Your task to perform on an android device: Look up the best rated pressure washer on Home Depot. Image 0: 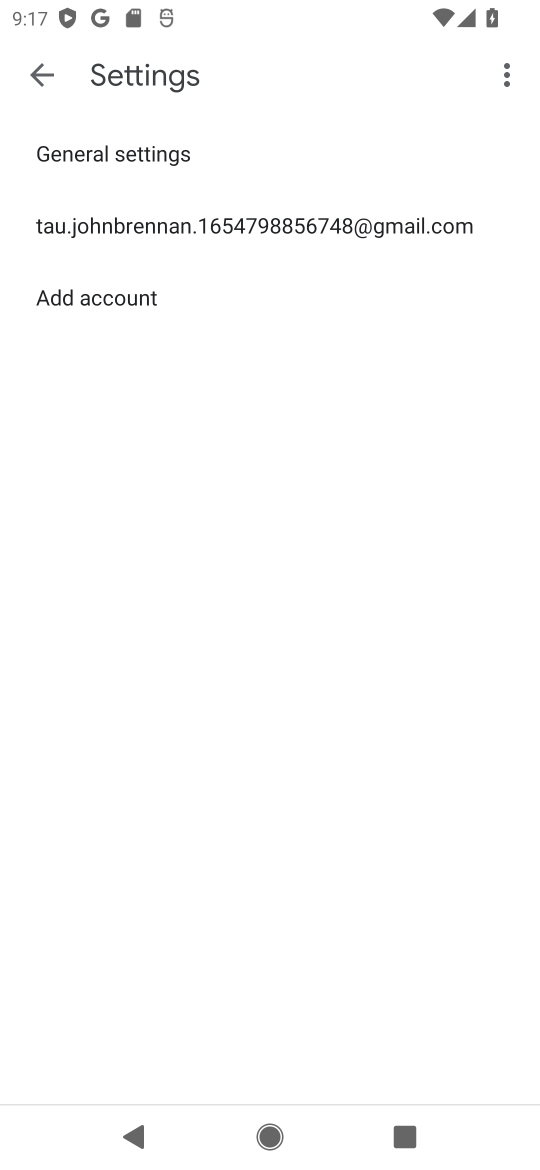
Step 0: press home button
Your task to perform on an android device: Look up the best rated pressure washer on Home Depot. Image 1: 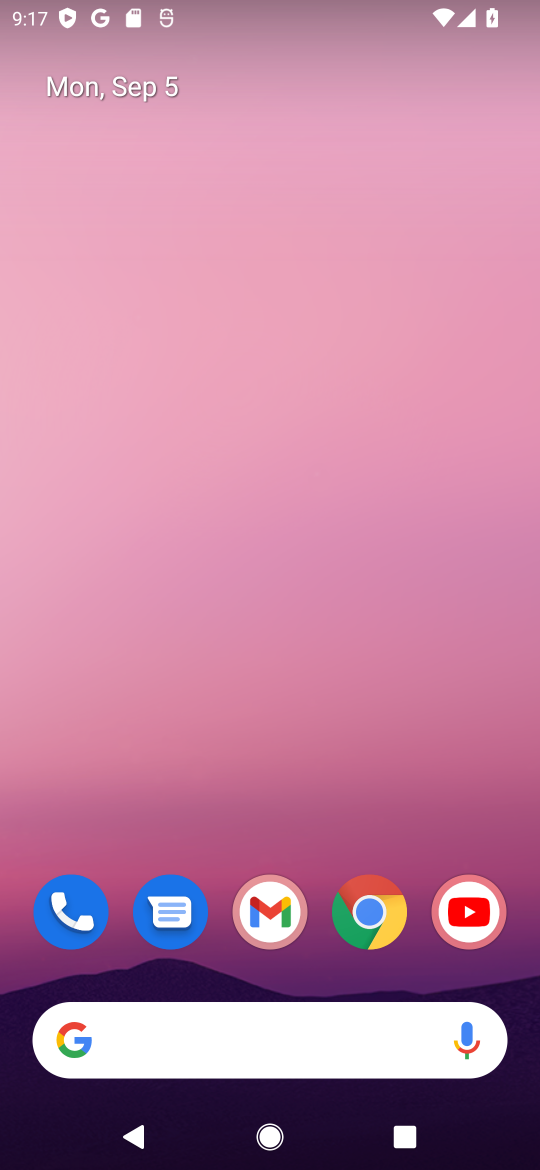
Step 1: click (385, 937)
Your task to perform on an android device: Look up the best rated pressure washer on Home Depot. Image 2: 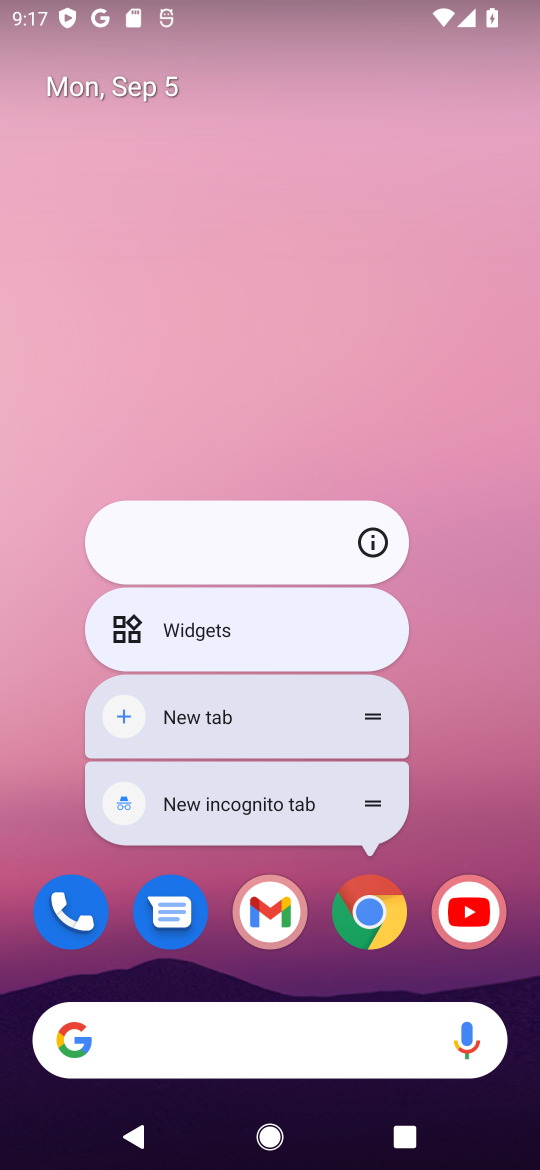
Step 2: click (382, 898)
Your task to perform on an android device: Look up the best rated pressure washer on Home Depot. Image 3: 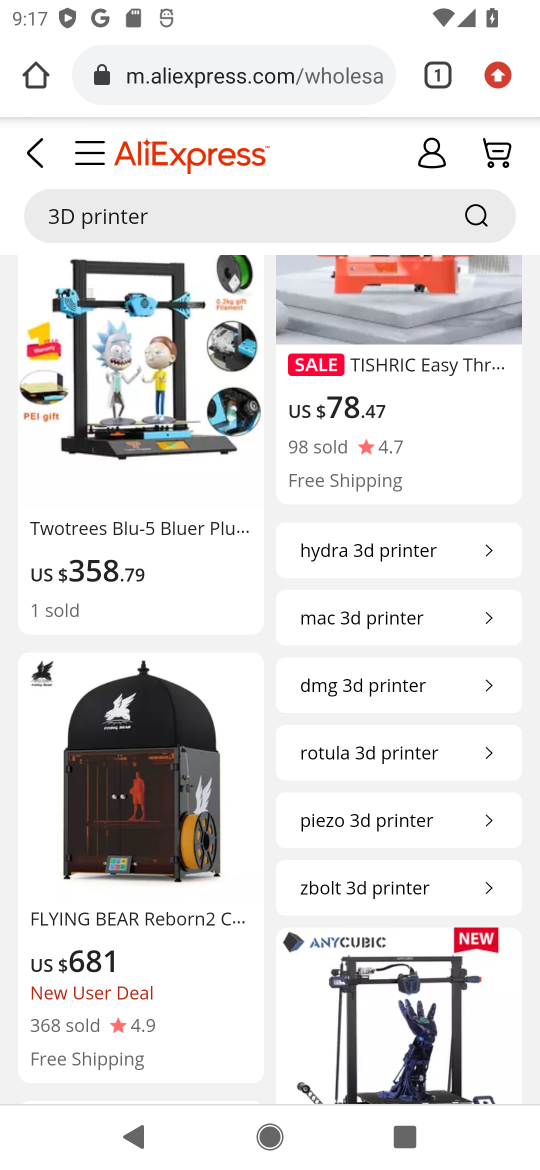
Step 3: click (291, 57)
Your task to perform on an android device: Look up the best rated pressure washer on Home Depot. Image 4: 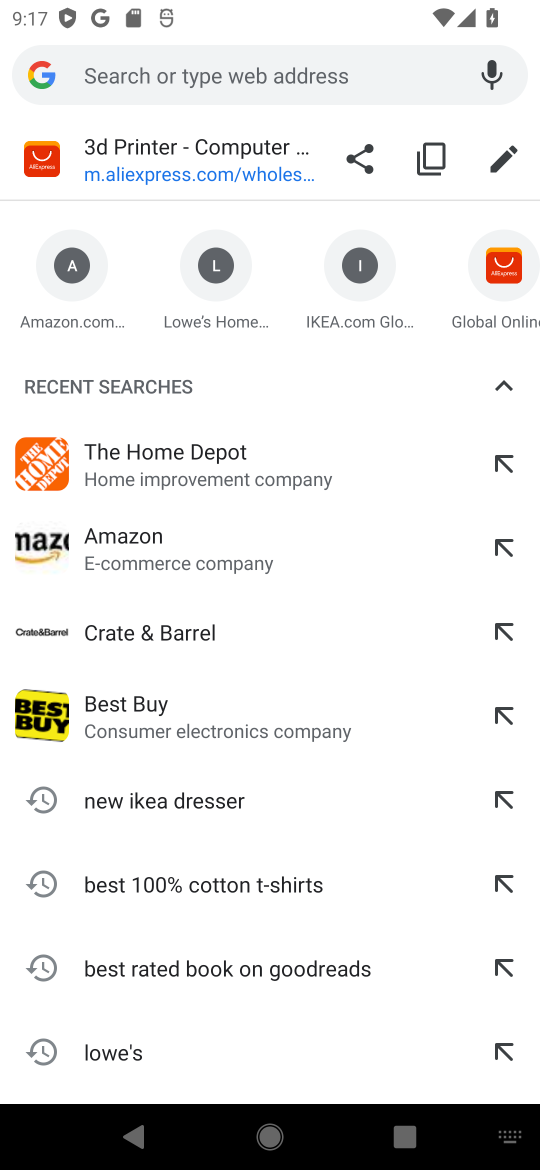
Step 4: type "home depot"
Your task to perform on an android device: Look up the best rated pressure washer on Home Depot. Image 5: 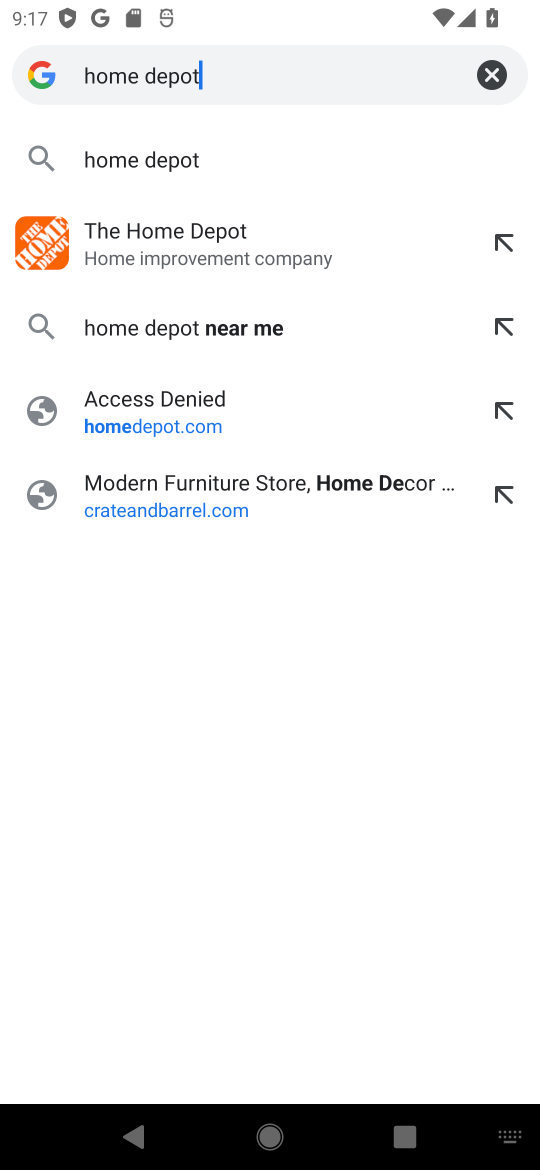
Step 5: press enter
Your task to perform on an android device: Look up the best rated pressure washer on Home Depot. Image 6: 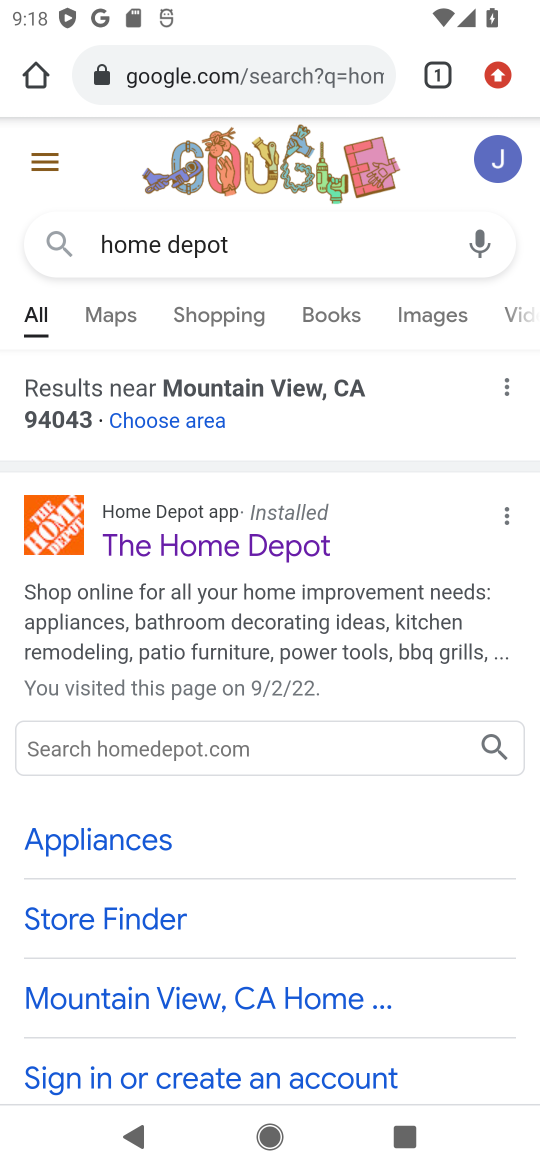
Step 6: click (171, 539)
Your task to perform on an android device: Look up the best rated pressure washer on Home Depot. Image 7: 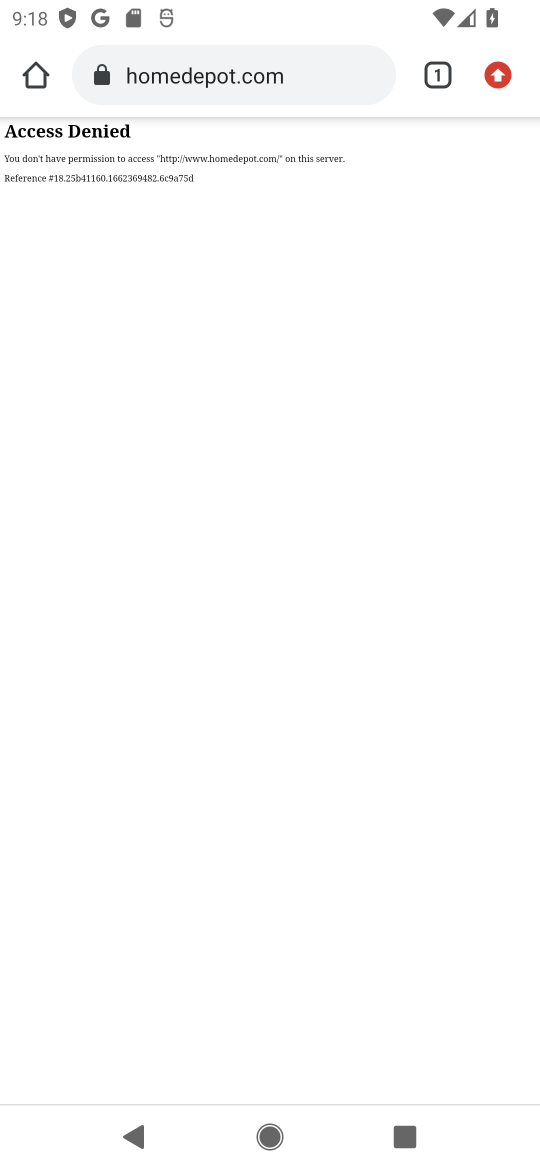
Step 7: press back button
Your task to perform on an android device: Look up the best rated pressure washer on Home Depot. Image 8: 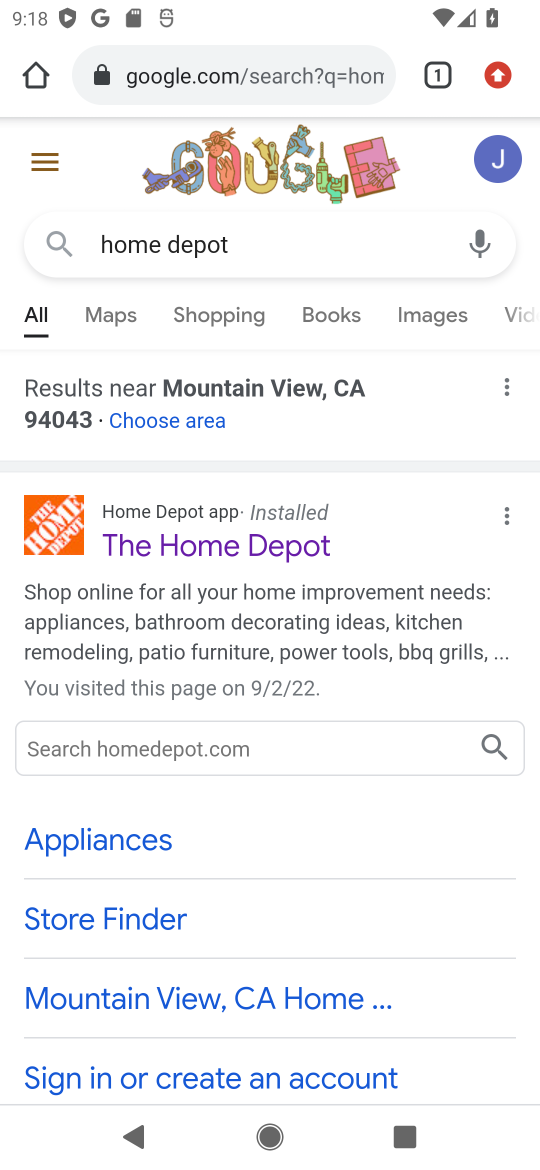
Step 8: click (284, 553)
Your task to perform on an android device: Look up the best rated pressure washer on Home Depot. Image 9: 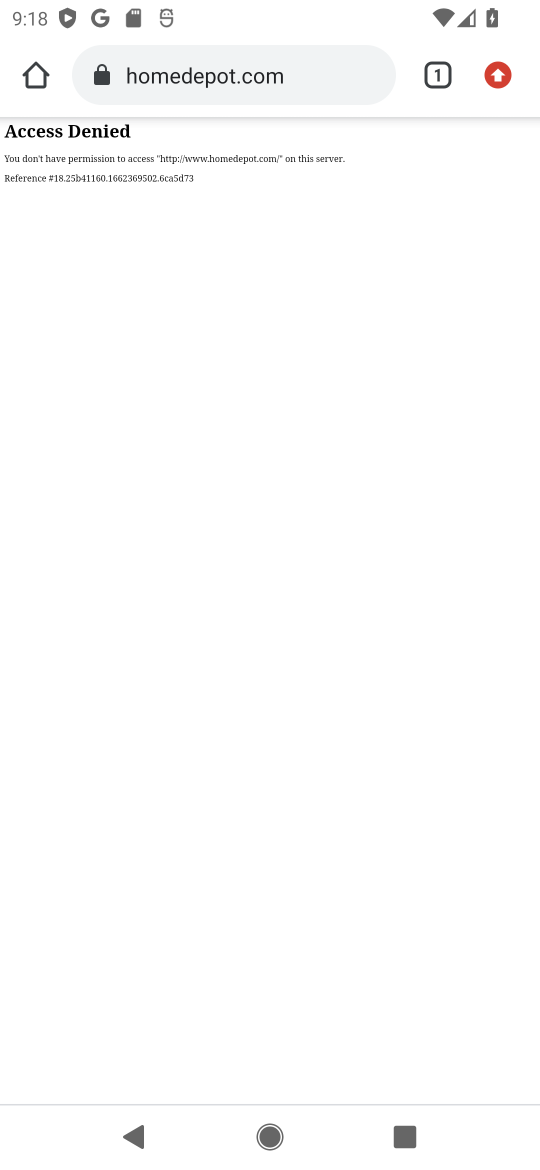
Step 9: press back button
Your task to perform on an android device: Look up the best rated pressure washer on Home Depot. Image 10: 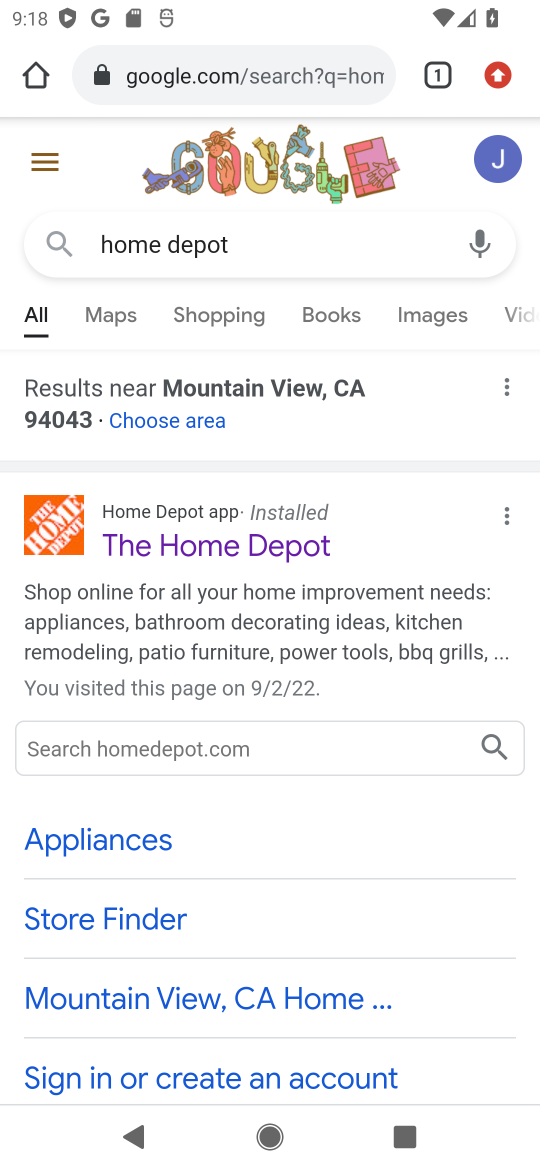
Step 10: click (177, 552)
Your task to perform on an android device: Look up the best rated pressure washer on Home Depot. Image 11: 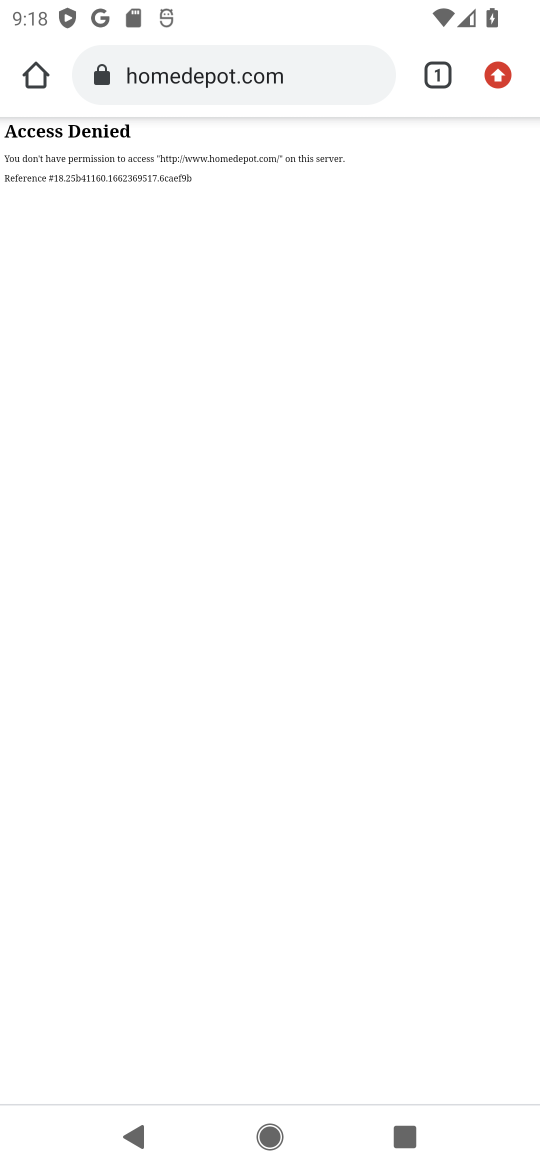
Step 11: task complete